Your task to perform on an android device: Open the stopwatch Image 0: 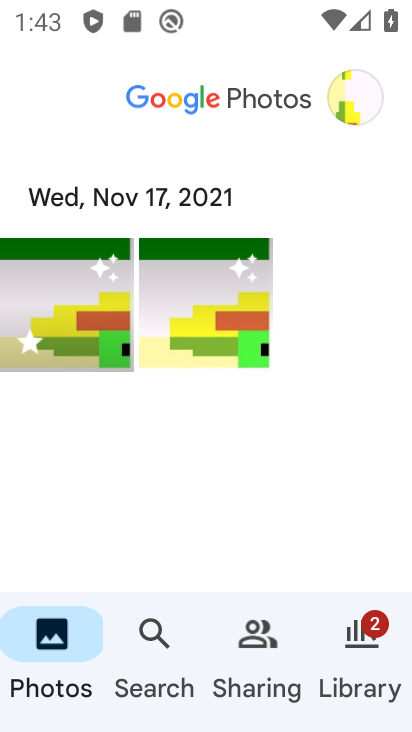
Step 0: press home button
Your task to perform on an android device: Open the stopwatch Image 1: 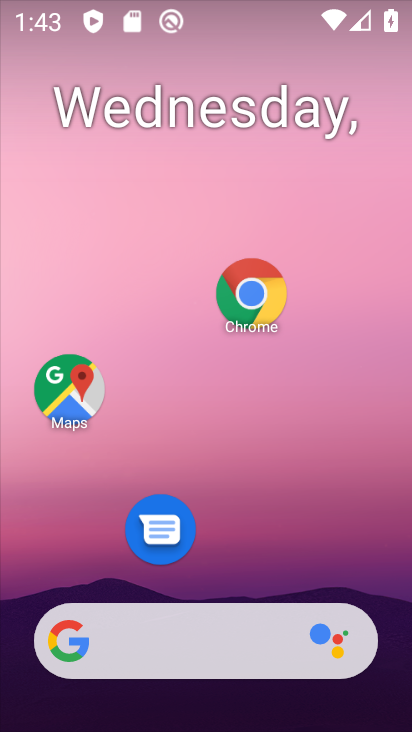
Step 1: drag from (274, 553) to (311, 145)
Your task to perform on an android device: Open the stopwatch Image 2: 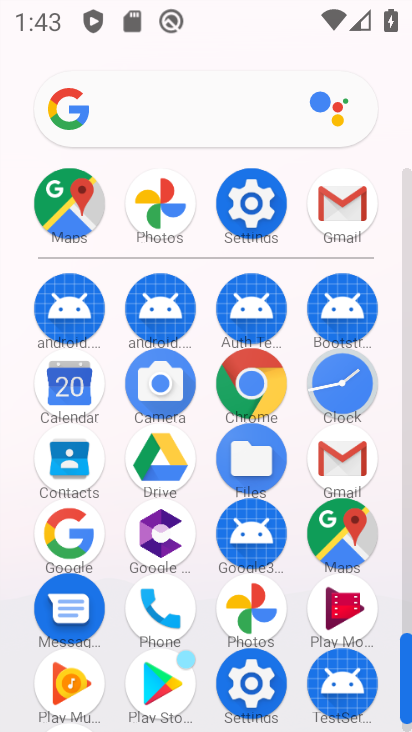
Step 2: click (348, 404)
Your task to perform on an android device: Open the stopwatch Image 3: 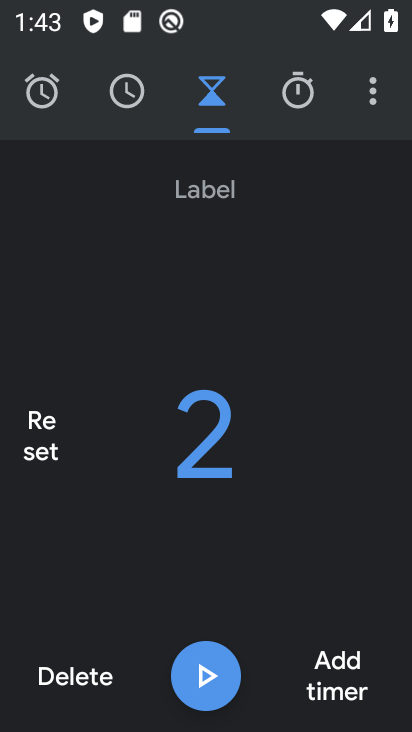
Step 3: click (376, 102)
Your task to perform on an android device: Open the stopwatch Image 4: 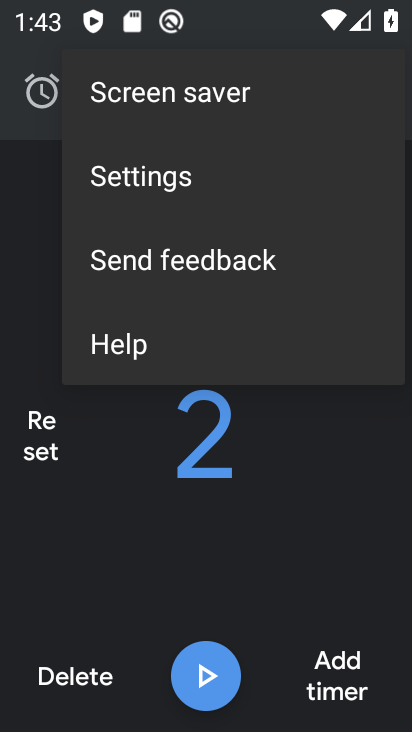
Step 4: click (306, 457)
Your task to perform on an android device: Open the stopwatch Image 5: 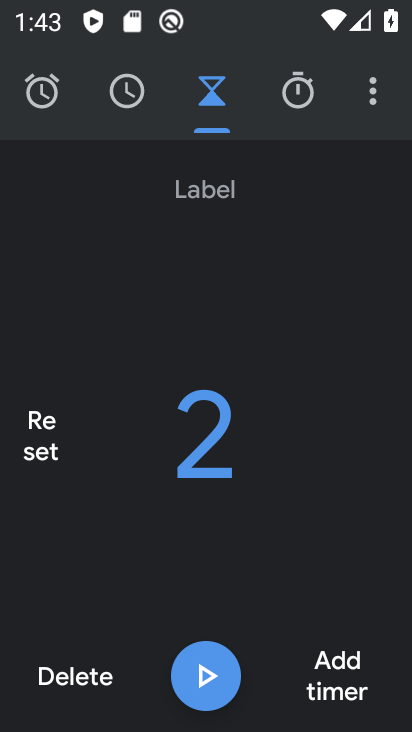
Step 5: click (299, 99)
Your task to perform on an android device: Open the stopwatch Image 6: 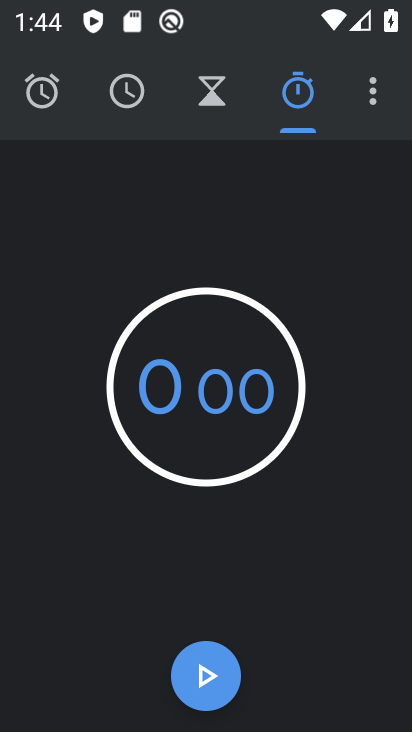
Step 6: task complete